Your task to perform on an android device: Open the Play Movies app and select the watchlist tab. Image 0: 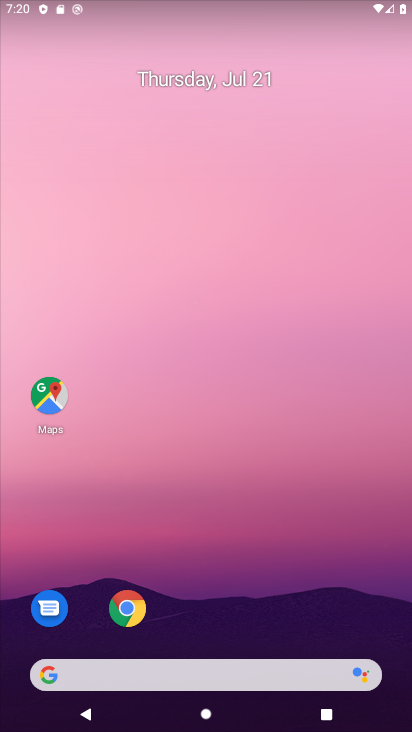
Step 0: drag from (167, 676) to (155, 236)
Your task to perform on an android device: Open the Play Movies app and select the watchlist tab. Image 1: 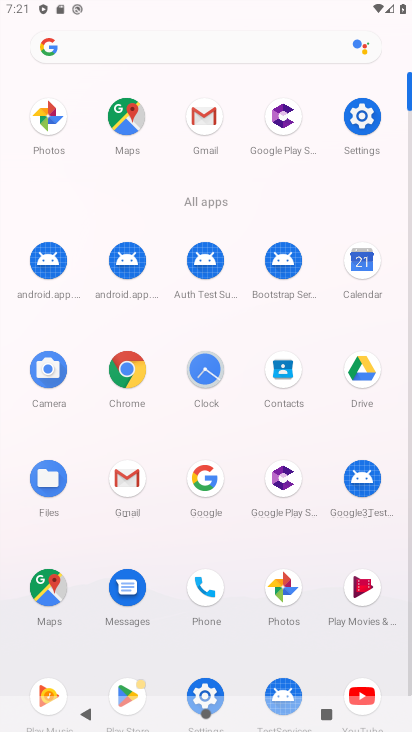
Step 1: drag from (271, 501) to (260, 463)
Your task to perform on an android device: Open the Play Movies app and select the watchlist tab. Image 2: 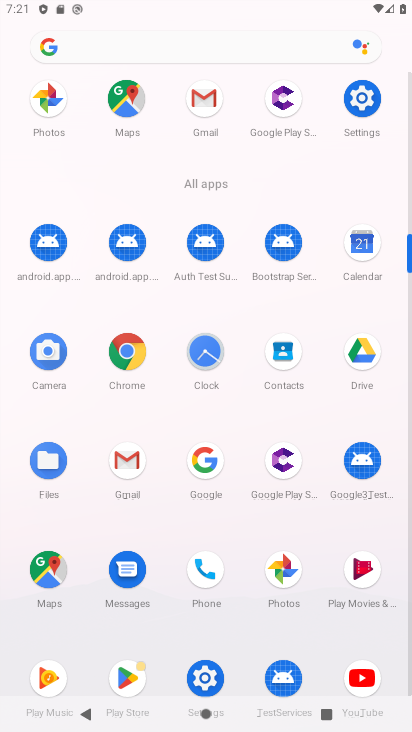
Step 2: click (358, 565)
Your task to perform on an android device: Open the Play Movies app and select the watchlist tab. Image 3: 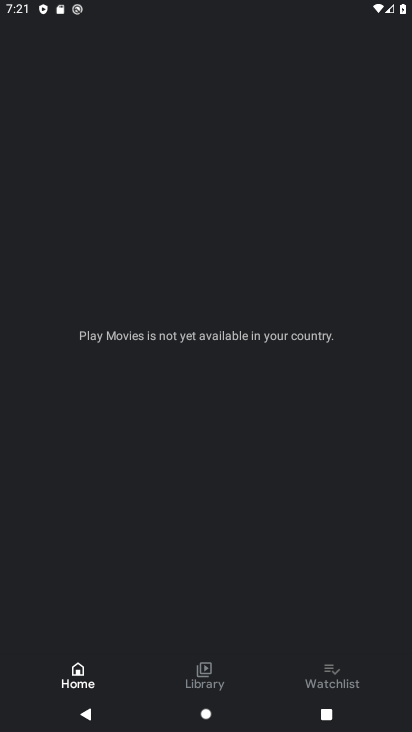
Step 3: click (333, 667)
Your task to perform on an android device: Open the Play Movies app and select the watchlist tab. Image 4: 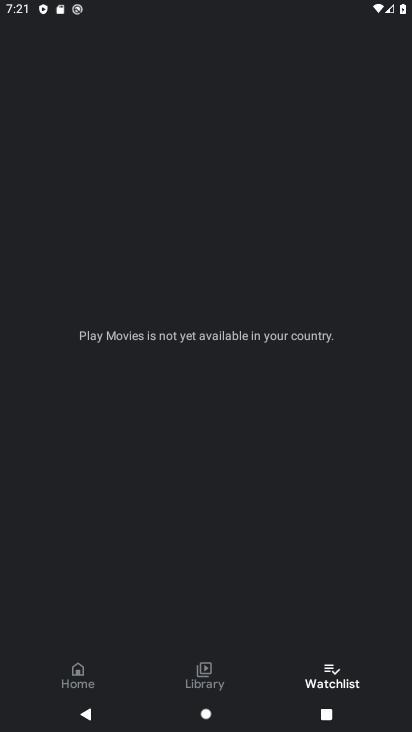
Step 4: task complete